Your task to perform on an android device: see creations saved in the google photos Image 0: 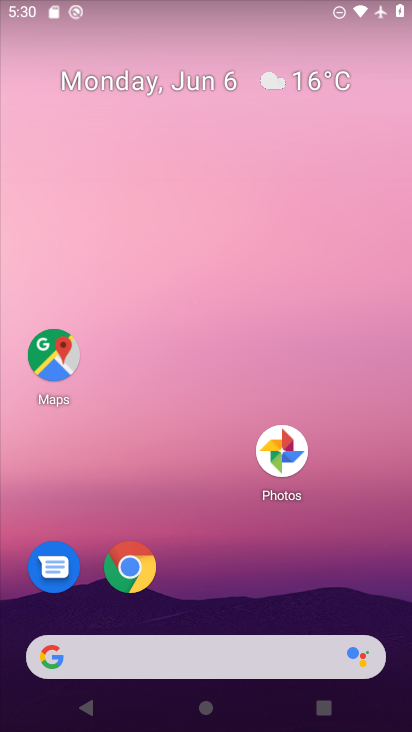
Step 0: drag from (192, 377) to (145, 31)
Your task to perform on an android device: see creations saved in the google photos Image 1: 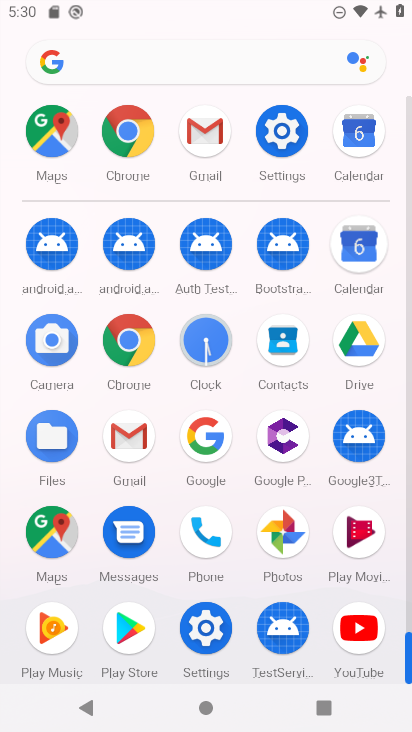
Step 1: click (287, 519)
Your task to perform on an android device: see creations saved in the google photos Image 2: 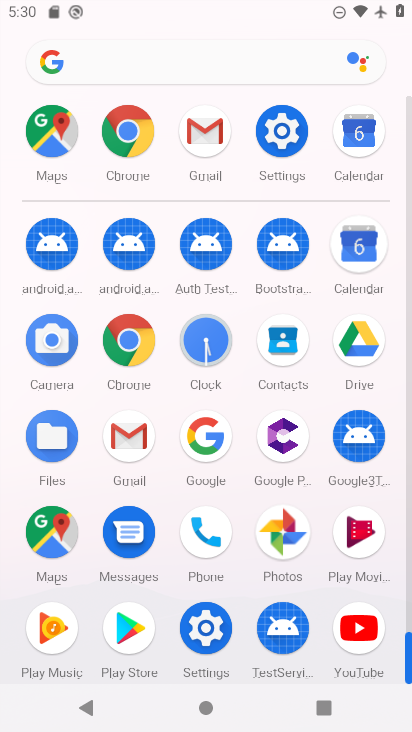
Step 2: click (287, 520)
Your task to perform on an android device: see creations saved in the google photos Image 3: 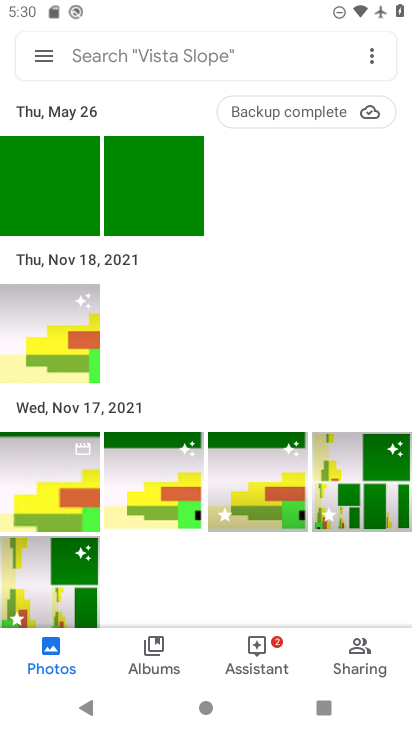
Step 3: task complete